Your task to perform on an android device: open chrome and create a bookmark for the current page Image 0: 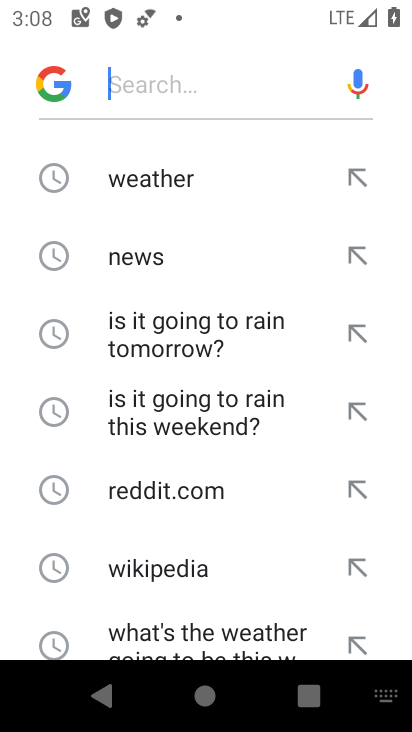
Step 0: press home button
Your task to perform on an android device: open chrome and create a bookmark for the current page Image 1: 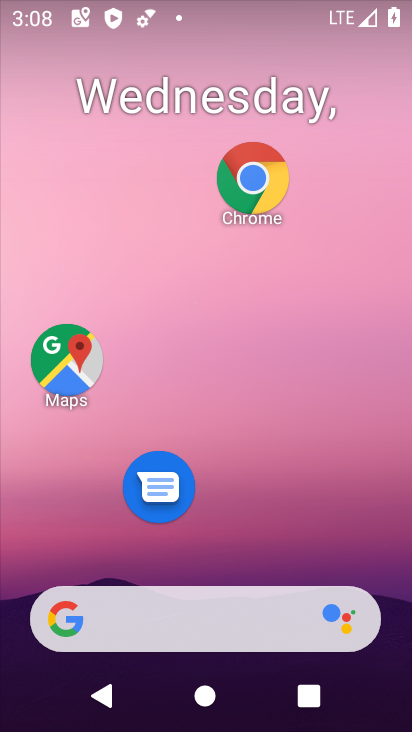
Step 1: click (257, 166)
Your task to perform on an android device: open chrome and create a bookmark for the current page Image 2: 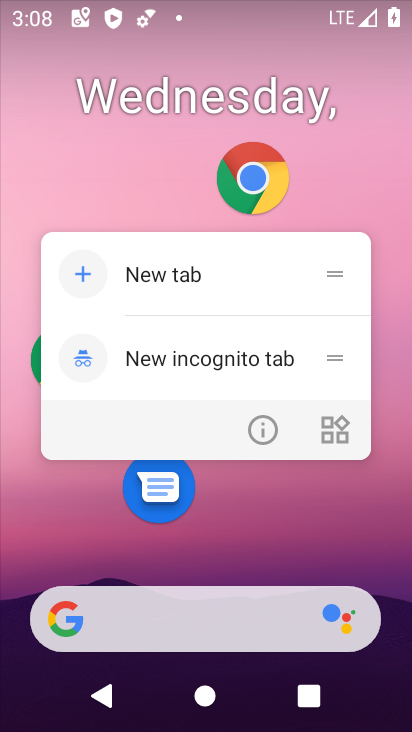
Step 2: click (257, 163)
Your task to perform on an android device: open chrome and create a bookmark for the current page Image 3: 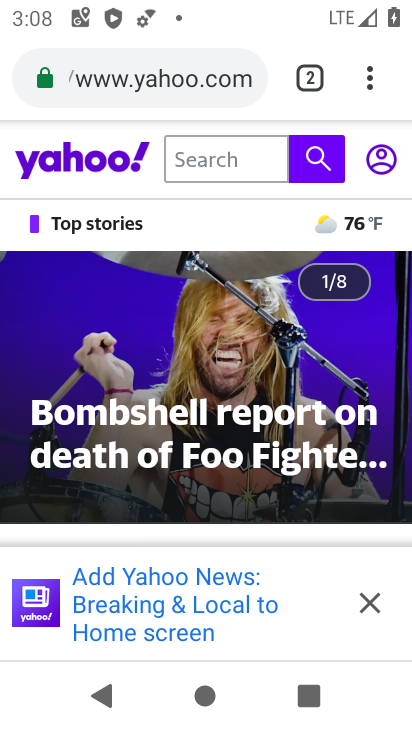
Step 3: click (365, 79)
Your task to perform on an android device: open chrome and create a bookmark for the current page Image 4: 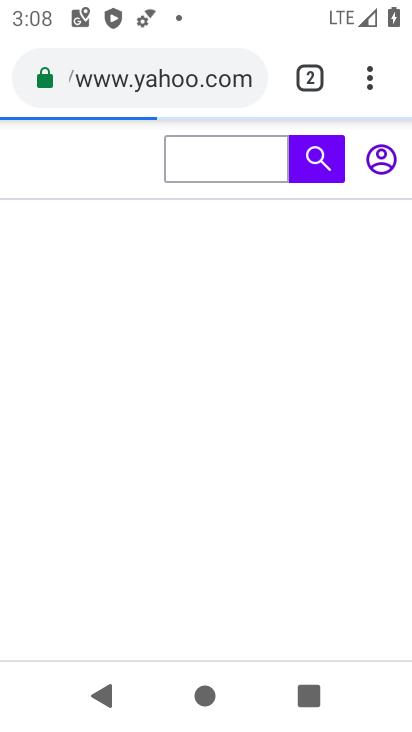
Step 4: click (366, 85)
Your task to perform on an android device: open chrome and create a bookmark for the current page Image 5: 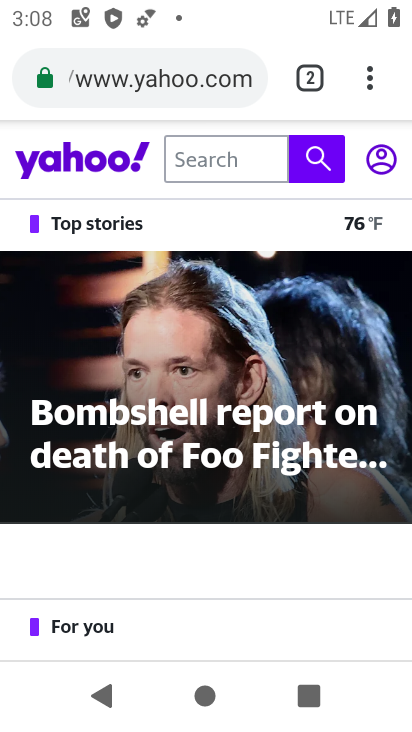
Step 5: click (371, 90)
Your task to perform on an android device: open chrome and create a bookmark for the current page Image 6: 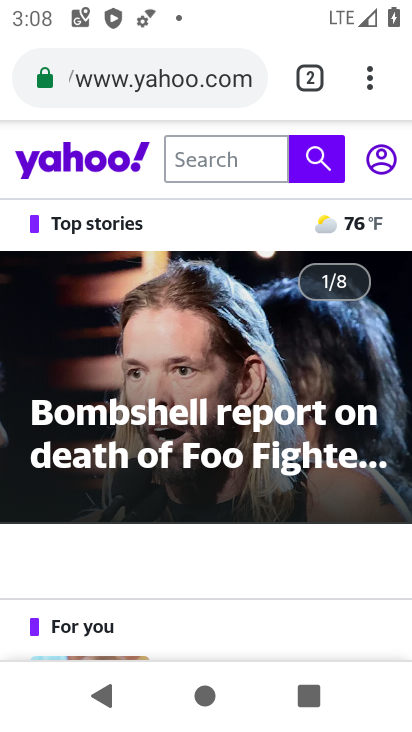
Step 6: click (371, 90)
Your task to perform on an android device: open chrome and create a bookmark for the current page Image 7: 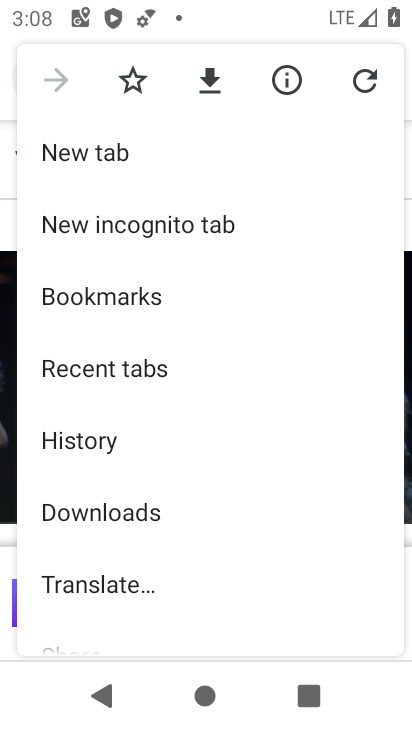
Step 7: click (132, 81)
Your task to perform on an android device: open chrome and create a bookmark for the current page Image 8: 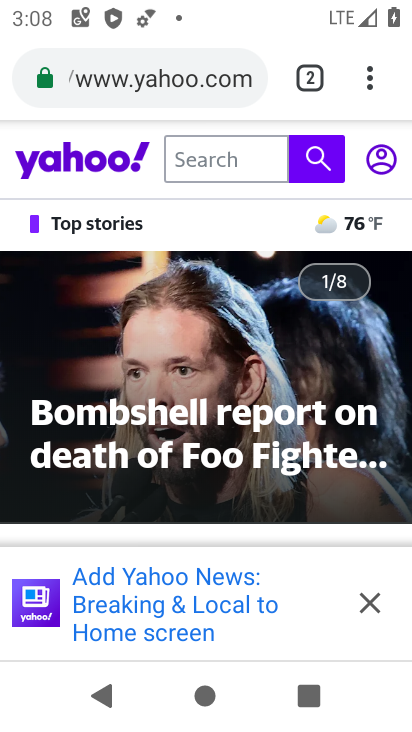
Step 8: task complete